Your task to perform on an android device: set the timer Image 0: 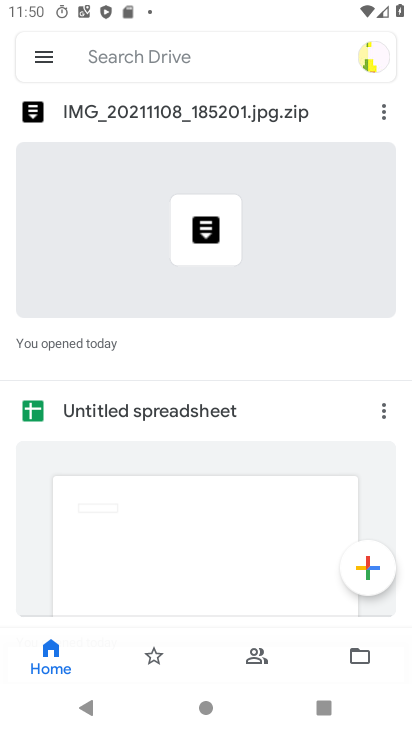
Step 0: press home button
Your task to perform on an android device: set the timer Image 1: 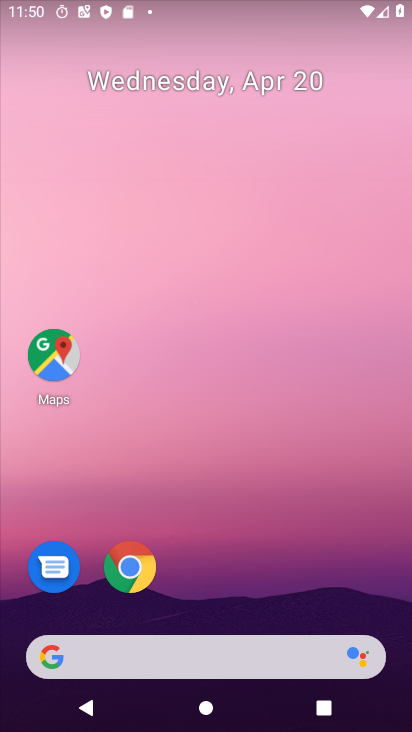
Step 1: drag from (244, 511) to (276, 209)
Your task to perform on an android device: set the timer Image 2: 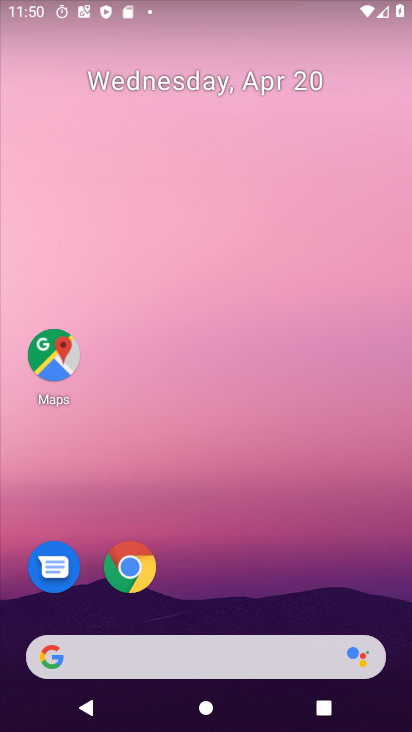
Step 2: drag from (272, 597) to (268, 182)
Your task to perform on an android device: set the timer Image 3: 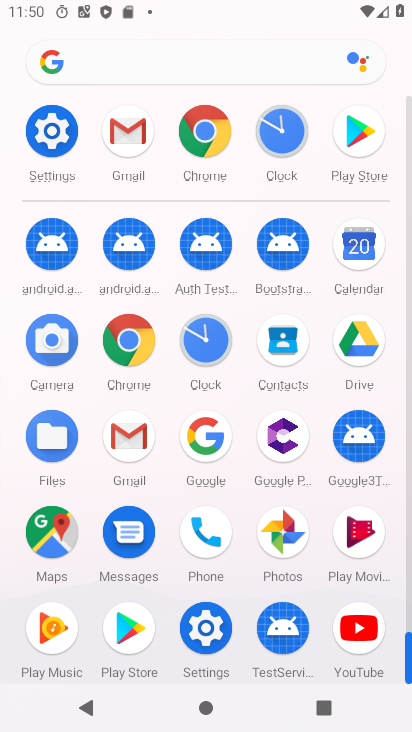
Step 3: drag from (36, 115) to (404, 521)
Your task to perform on an android device: set the timer Image 4: 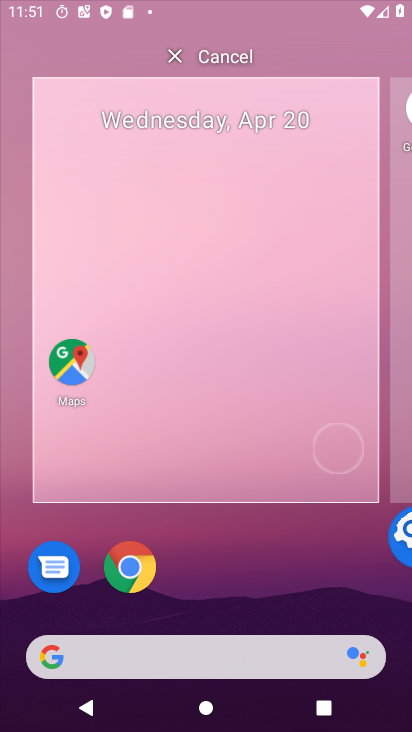
Step 4: drag from (266, 501) to (301, 227)
Your task to perform on an android device: set the timer Image 5: 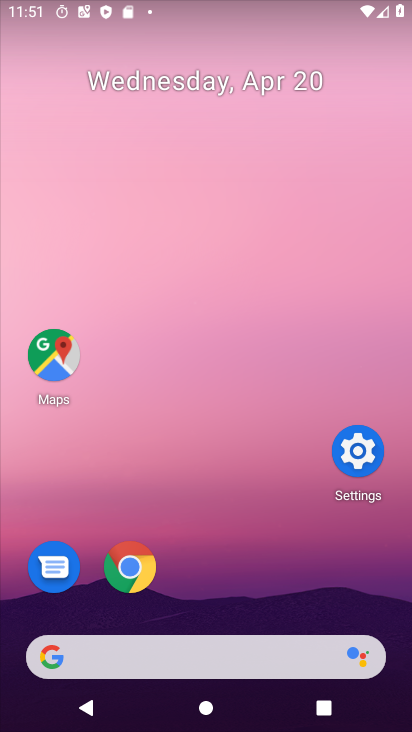
Step 5: drag from (254, 570) to (269, 148)
Your task to perform on an android device: set the timer Image 6: 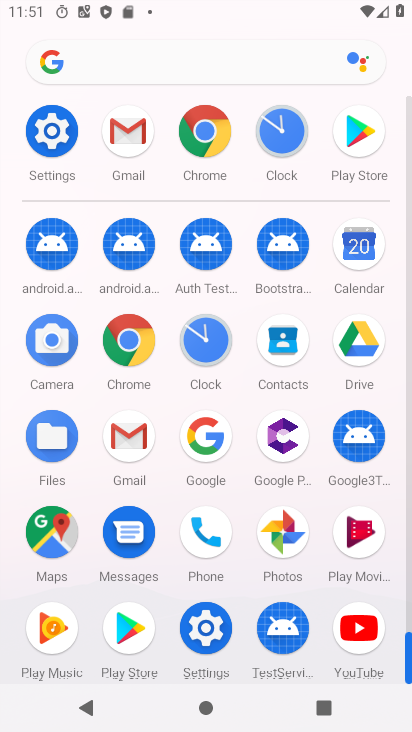
Step 6: click (209, 346)
Your task to perform on an android device: set the timer Image 7: 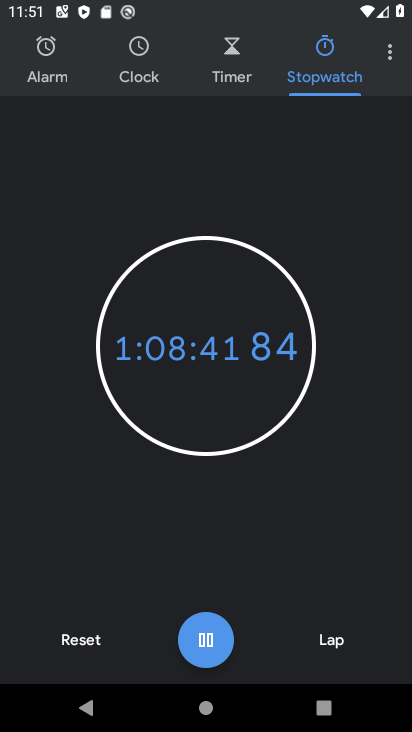
Step 7: click (391, 54)
Your task to perform on an android device: set the timer Image 8: 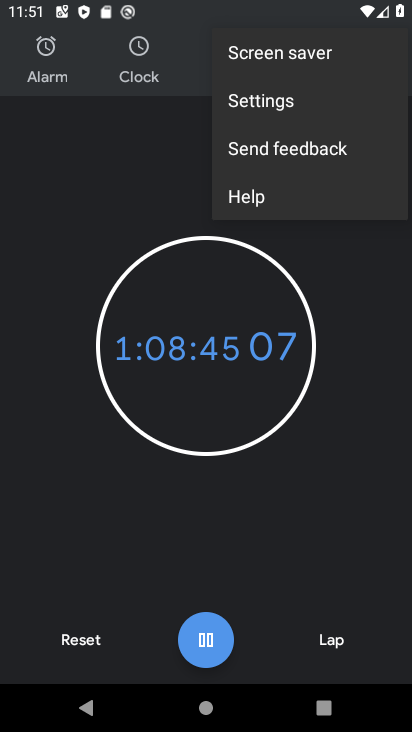
Step 8: click (273, 450)
Your task to perform on an android device: set the timer Image 9: 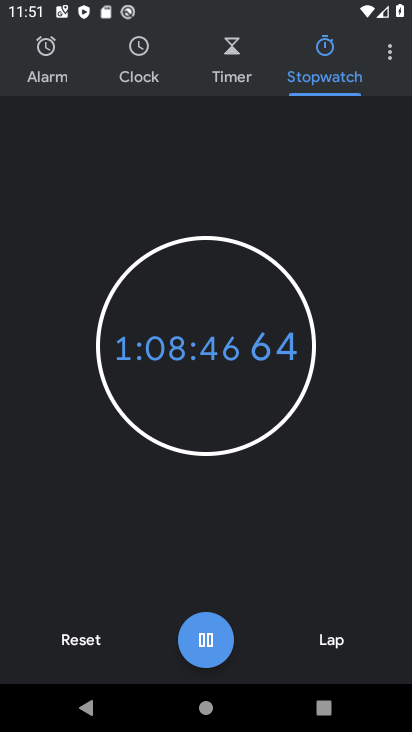
Step 9: click (213, 72)
Your task to perform on an android device: set the timer Image 10: 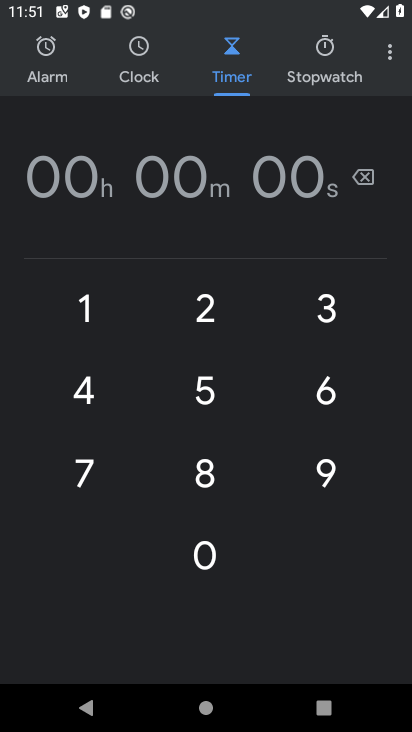
Step 10: click (213, 483)
Your task to perform on an android device: set the timer Image 11: 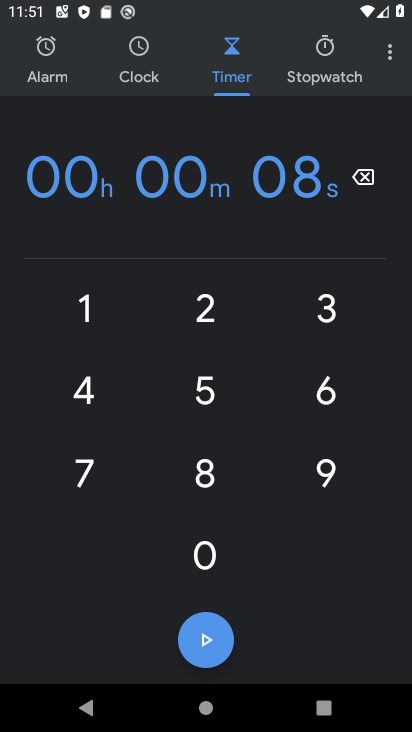
Step 11: click (212, 388)
Your task to perform on an android device: set the timer Image 12: 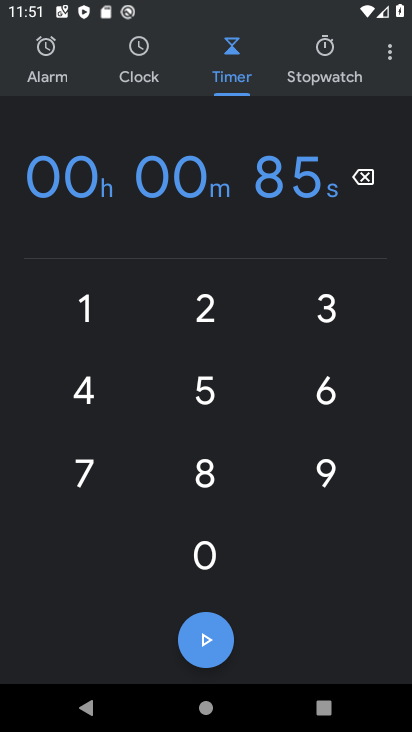
Step 12: click (212, 388)
Your task to perform on an android device: set the timer Image 13: 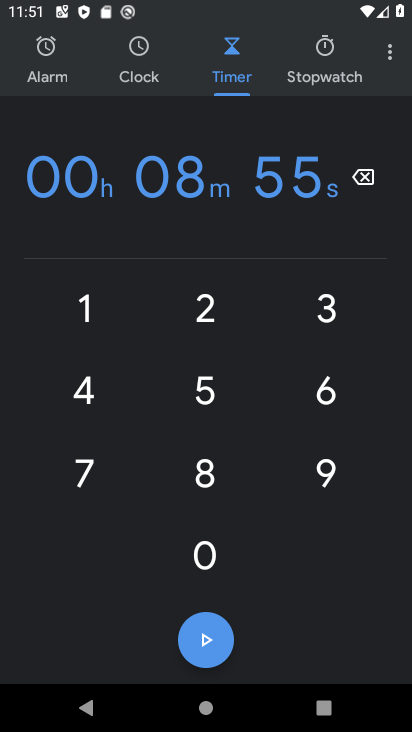
Step 13: click (213, 654)
Your task to perform on an android device: set the timer Image 14: 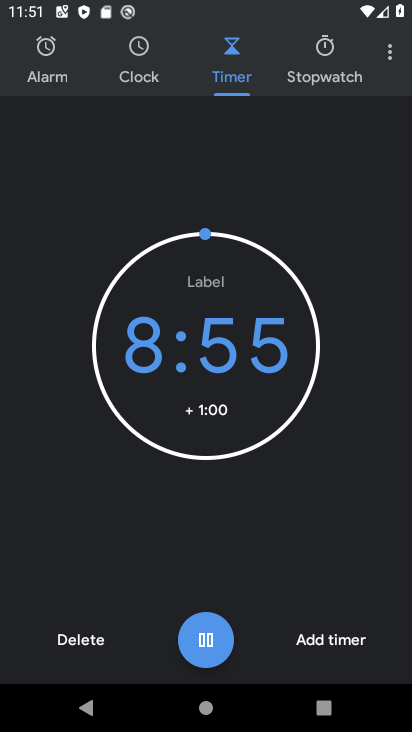
Step 14: task complete